Your task to perform on an android device: Search for flights from NYC to Tokyo Image 0: 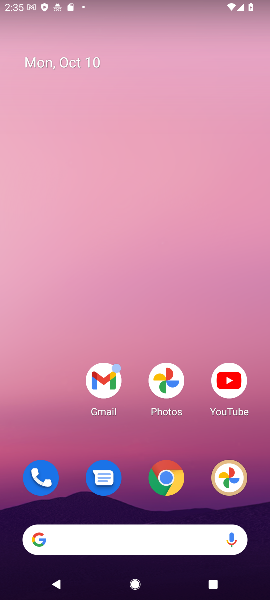
Step 0: click (141, 459)
Your task to perform on an android device: Search for flights from NYC to Tokyo Image 1: 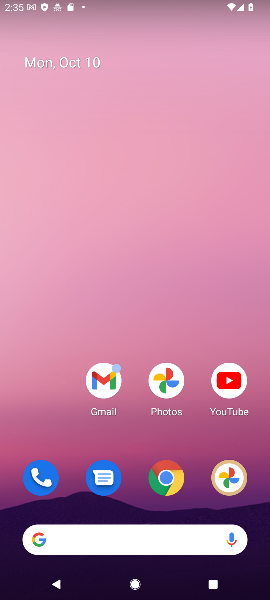
Step 1: click (148, 472)
Your task to perform on an android device: Search for flights from NYC to Tokyo Image 2: 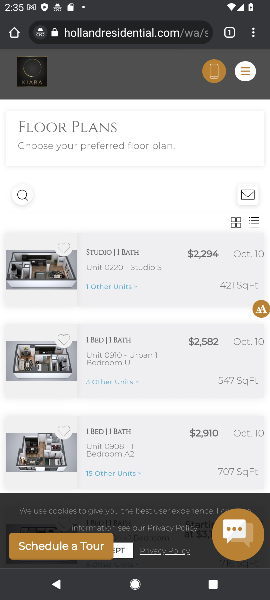
Step 2: click (140, 32)
Your task to perform on an android device: Search for flights from NYC to Tokyo Image 3: 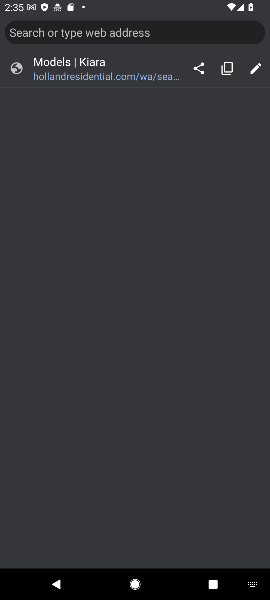
Step 3: type "Search for flights from NYC to Tokyo"
Your task to perform on an android device: Search for flights from NYC to Tokyo Image 4: 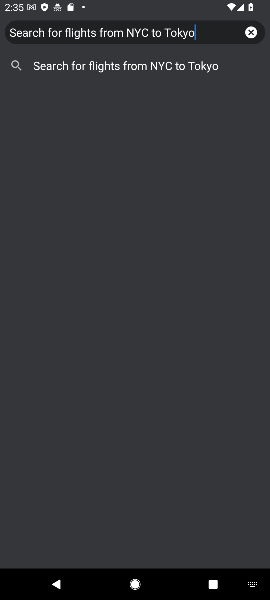
Step 4: click (123, 63)
Your task to perform on an android device: Search for flights from NYC to Tokyo Image 5: 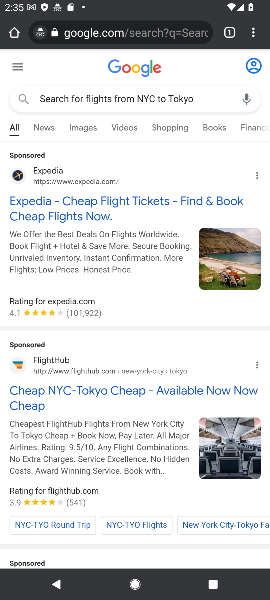
Step 5: click (47, 419)
Your task to perform on an android device: Search for flights from NYC to Tokyo Image 6: 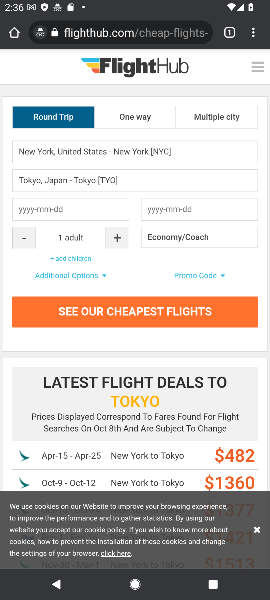
Step 6: task complete